Your task to perform on an android device: Go to Yahoo.com Image 0: 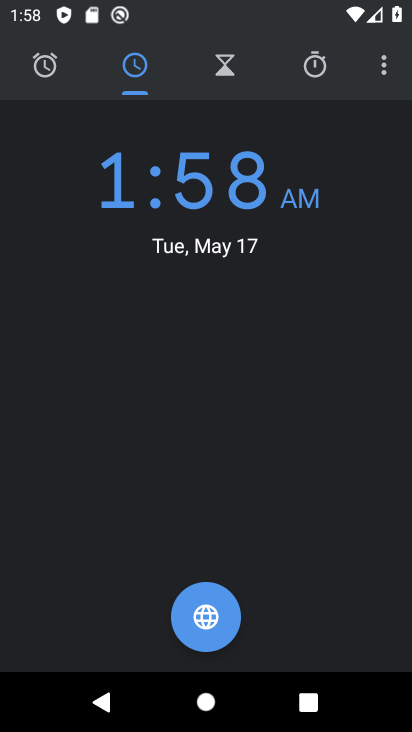
Step 0: press home button
Your task to perform on an android device: Go to Yahoo.com Image 1: 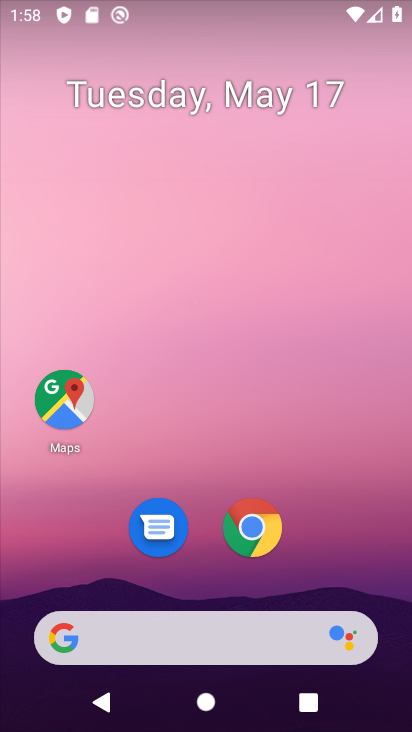
Step 1: click (271, 540)
Your task to perform on an android device: Go to Yahoo.com Image 2: 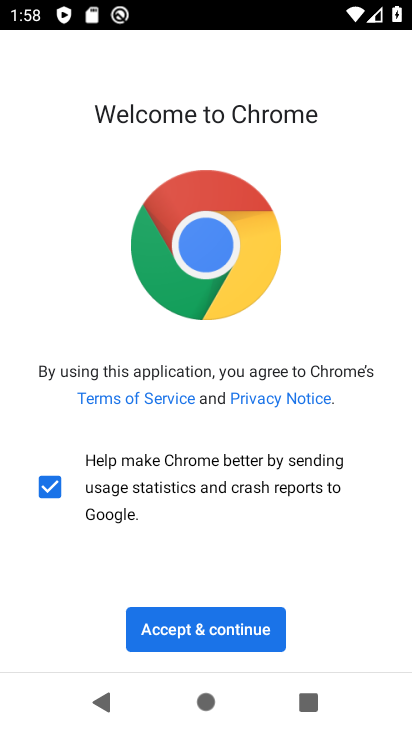
Step 2: click (255, 626)
Your task to perform on an android device: Go to Yahoo.com Image 3: 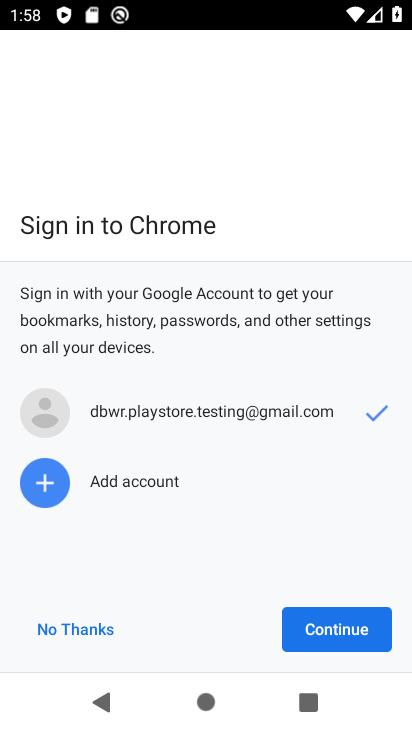
Step 3: click (317, 631)
Your task to perform on an android device: Go to Yahoo.com Image 4: 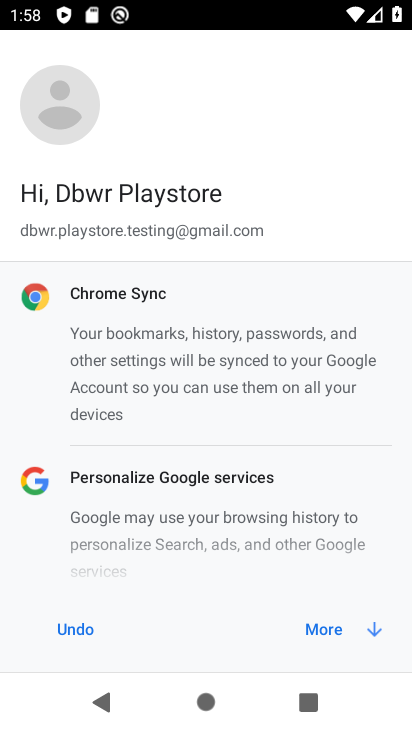
Step 4: click (317, 631)
Your task to perform on an android device: Go to Yahoo.com Image 5: 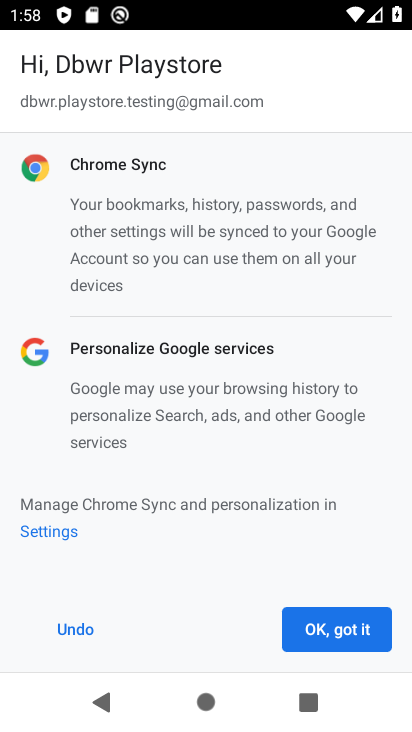
Step 5: click (318, 632)
Your task to perform on an android device: Go to Yahoo.com Image 6: 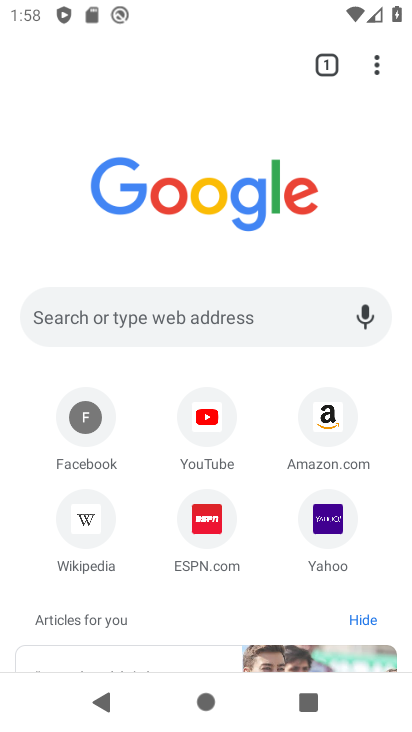
Step 6: click (351, 541)
Your task to perform on an android device: Go to Yahoo.com Image 7: 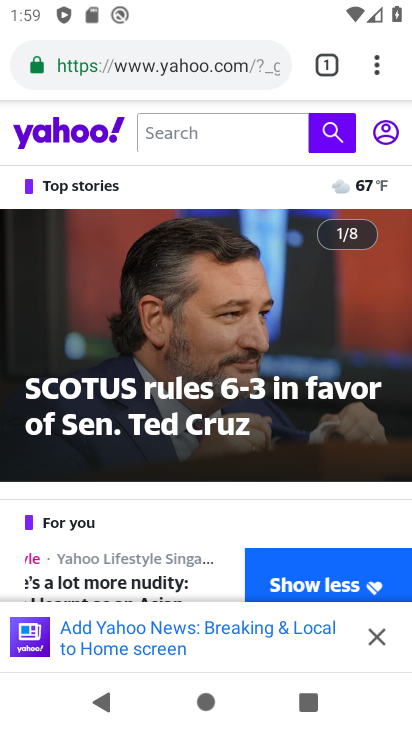
Step 7: task complete